Your task to perform on an android device: Turn off the flashlight Image 0: 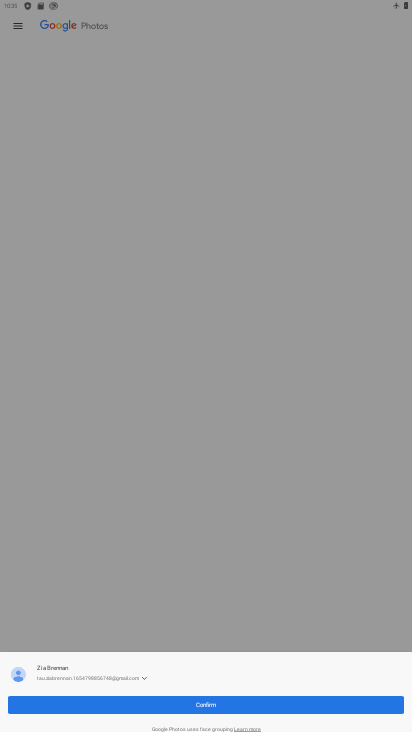
Step 0: press home button
Your task to perform on an android device: Turn off the flashlight Image 1: 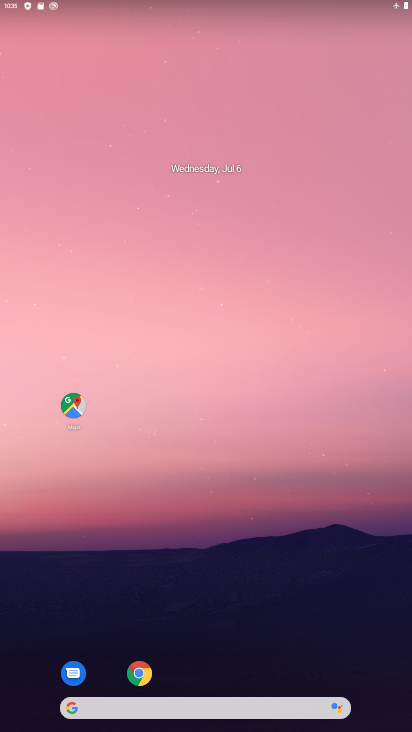
Step 1: drag from (248, 664) to (231, 48)
Your task to perform on an android device: Turn off the flashlight Image 2: 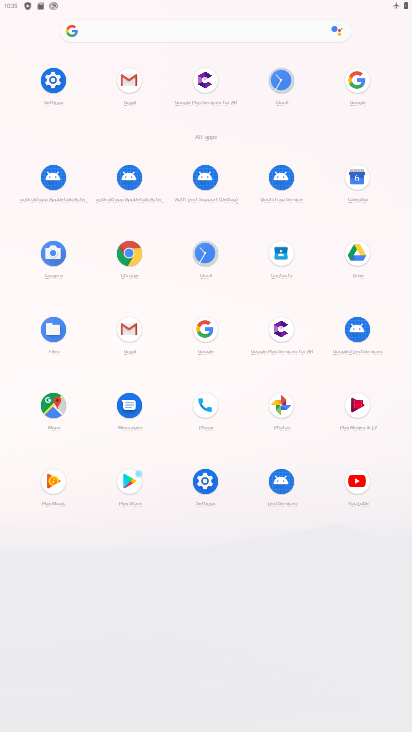
Step 2: click (51, 80)
Your task to perform on an android device: Turn off the flashlight Image 3: 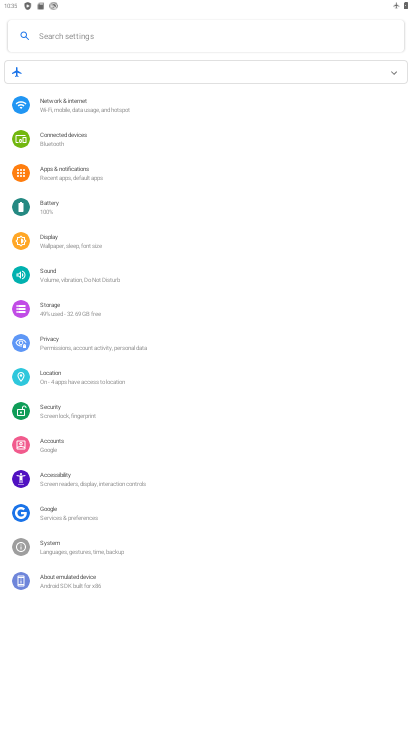
Step 3: click (136, 37)
Your task to perform on an android device: Turn off the flashlight Image 4: 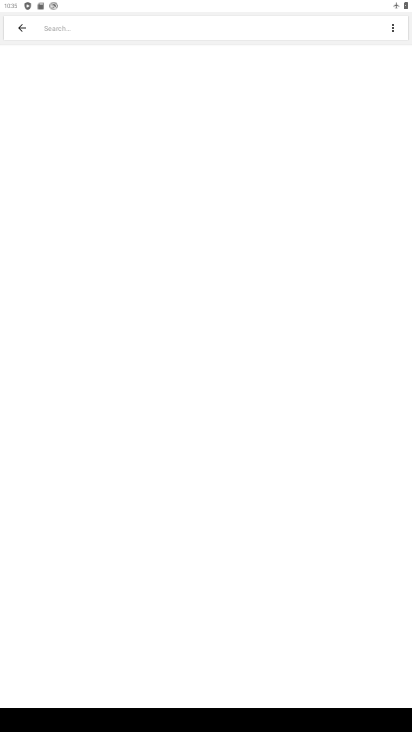
Step 4: type "flash"
Your task to perform on an android device: Turn off the flashlight Image 5: 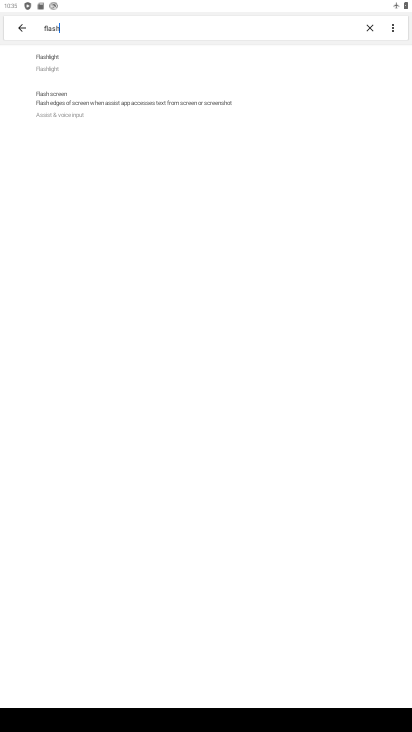
Step 5: task complete